Your task to perform on an android device: toggle wifi Image 0: 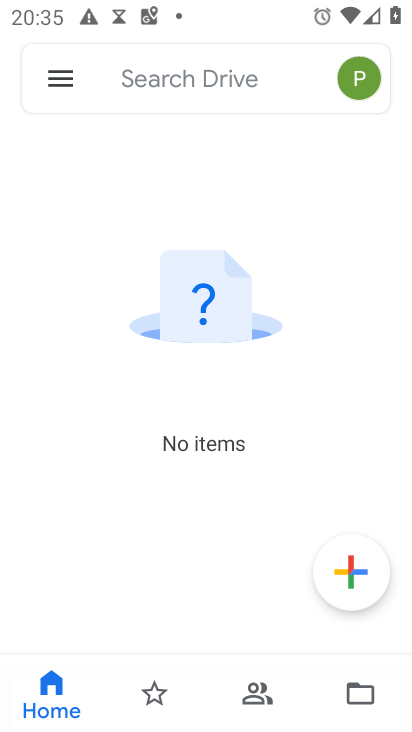
Step 0: press back button
Your task to perform on an android device: toggle wifi Image 1: 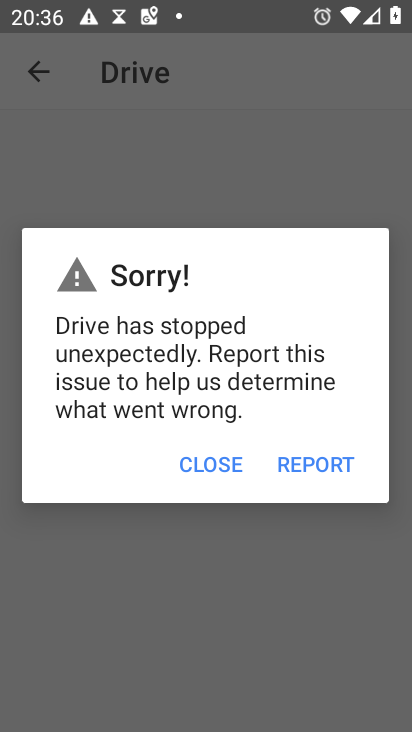
Step 1: press back button
Your task to perform on an android device: toggle wifi Image 2: 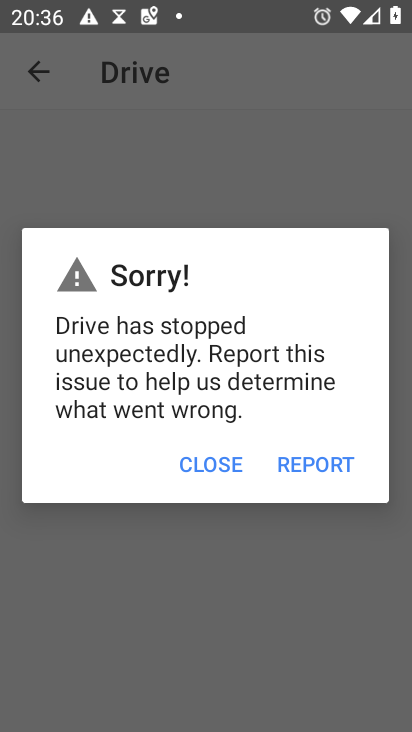
Step 2: press home button
Your task to perform on an android device: toggle wifi Image 3: 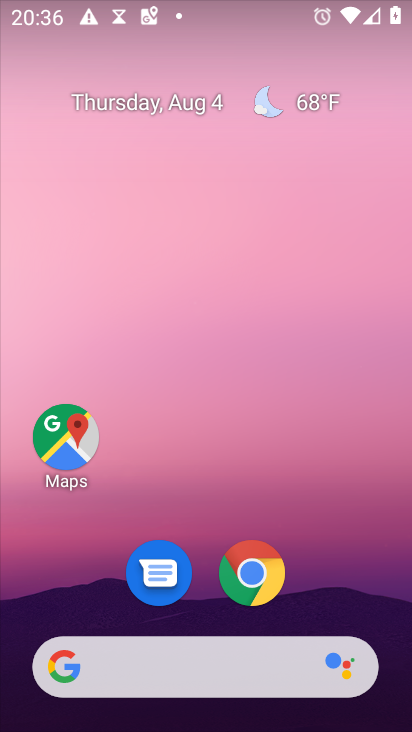
Step 3: drag from (209, 660) to (215, 108)
Your task to perform on an android device: toggle wifi Image 4: 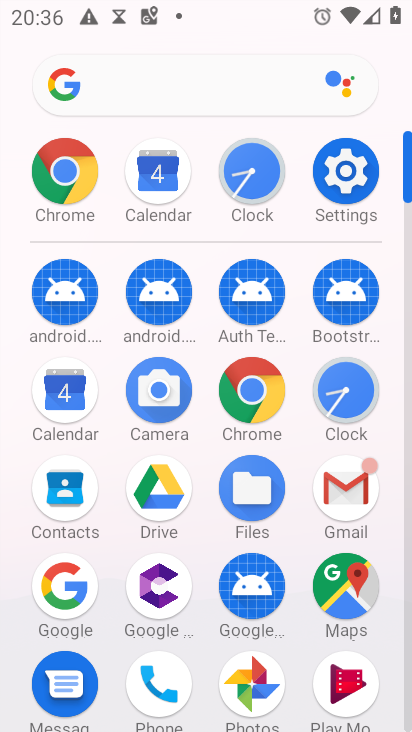
Step 4: click (355, 160)
Your task to perform on an android device: toggle wifi Image 5: 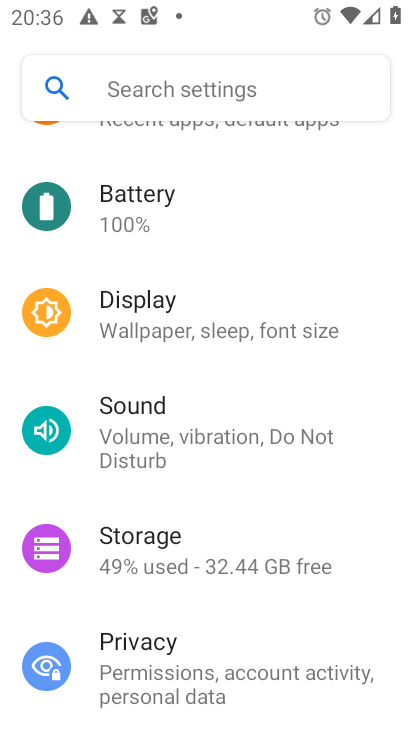
Step 5: drag from (245, 205) to (279, 458)
Your task to perform on an android device: toggle wifi Image 6: 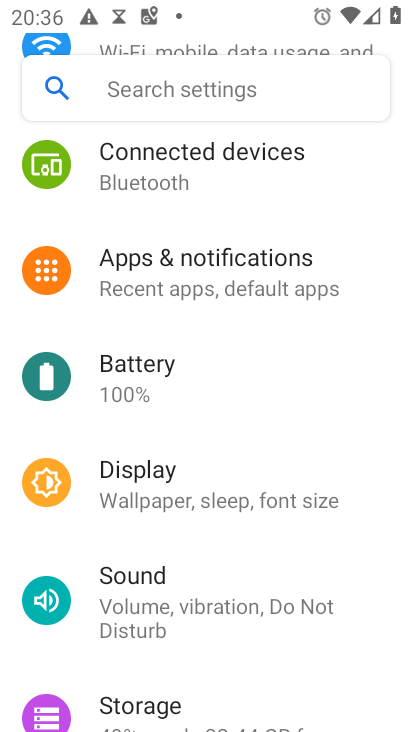
Step 6: drag from (248, 213) to (247, 545)
Your task to perform on an android device: toggle wifi Image 7: 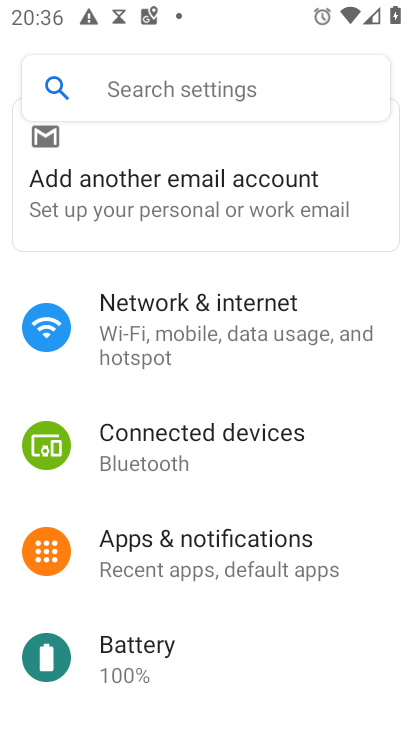
Step 7: click (199, 300)
Your task to perform on an android device: toggle wifi Image 8: 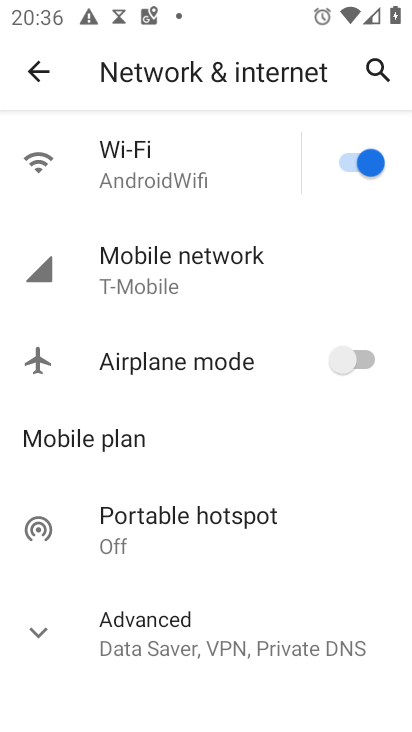
Step 8: click (373, 163)
Your task to perform on an android device: toggle wifi Image 9: 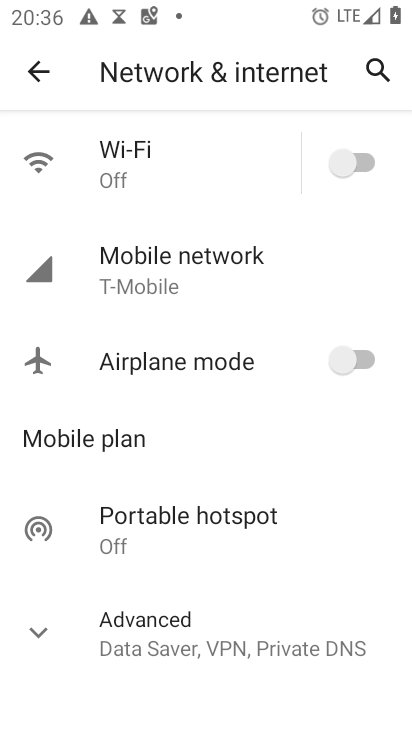
Step 9: task complete